Your task to perform on an android device: change the clock display to show seconds Image 0: 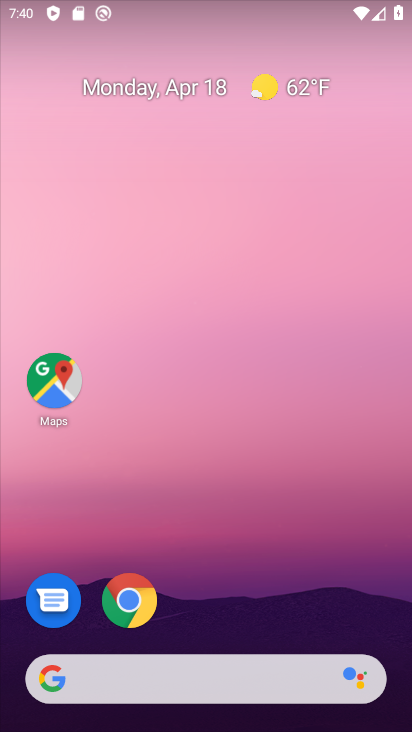
Step 0: drag from (154, 4) to (273, 8)
Your task to perform on an android device: change the clock display to show seconds Image 1: 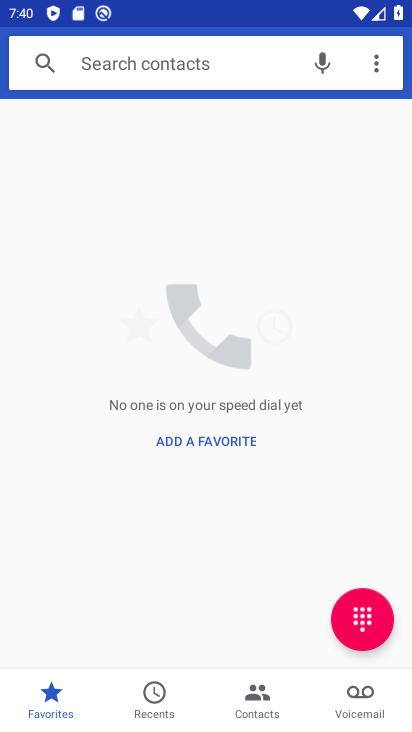
Step 1: press home button
Your task to perform on an android device: change the clock display to show seconds Image 2: 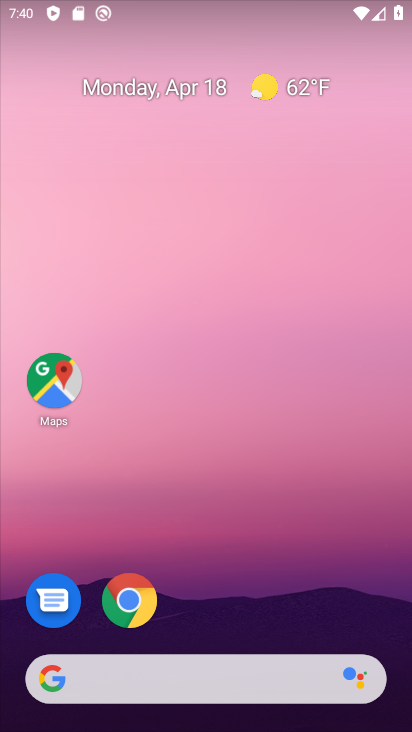
Step 2: drag from (220, 650) to (213, 19)
Your task to perform on an android device: change the clock display to show seconds Image 3: 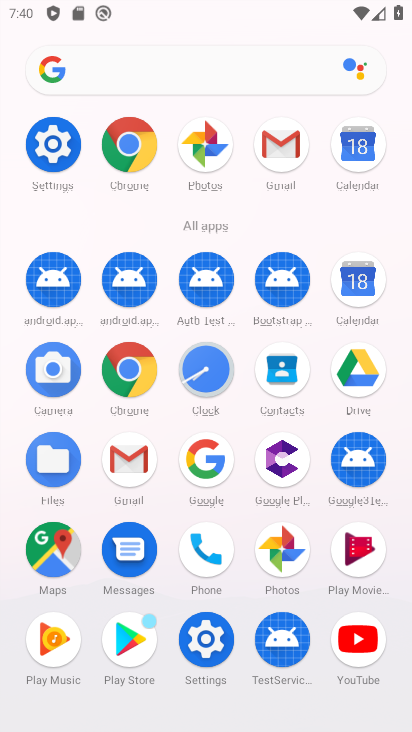
Step 3: click (211, 381)
Your task to perform on an android device: change the clock display to show seconds Image 4: 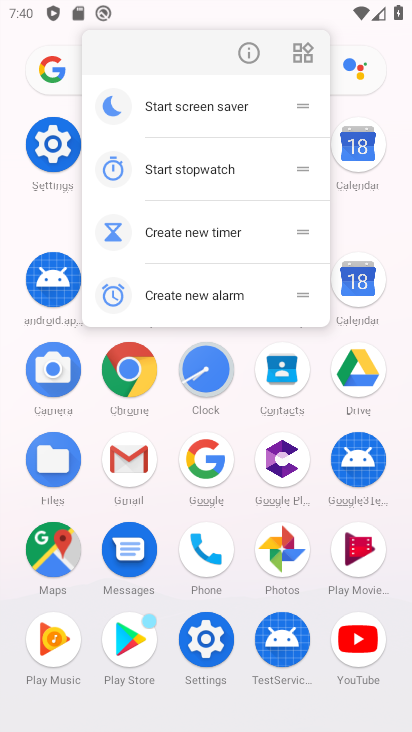
Step 4: click (208, 370)
Your task to perform on an android device: change the clock display to show seconds Image 5: 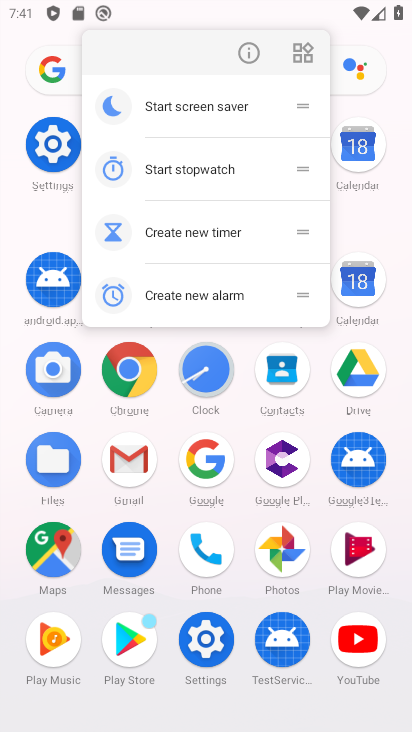
Step 5: click (208, 370)
Your task to perform on an android device: change the clock display to show seconds Image 6: 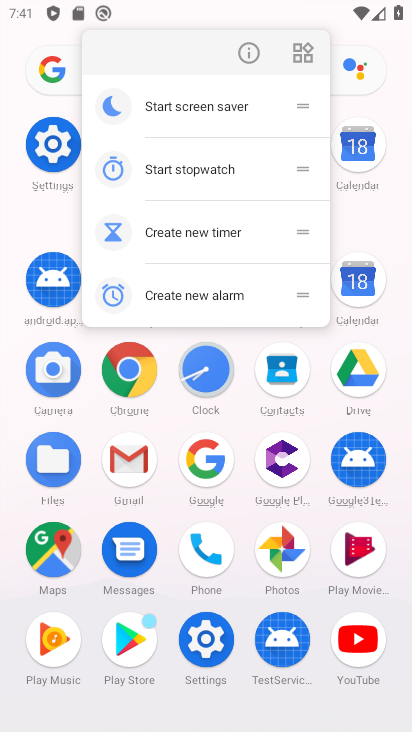
Step 6: click (207, 369)
Your task to perform on an android device: change the clock display to show seconds Image 7: 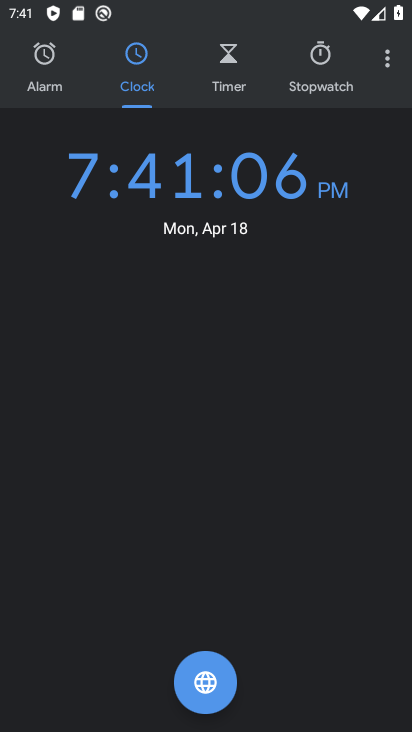
Step 7: click (387, 70)
Your task to perform on an android device: change the clock display to show seconds Image 8: 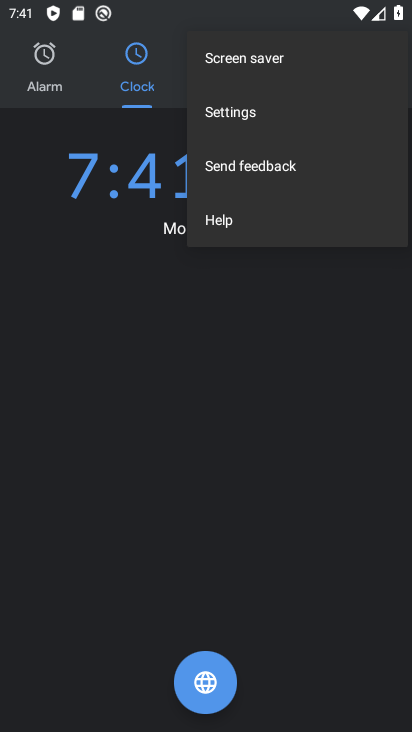
Step 8: click (280, 116)
Your task to perform on an android device: change the clock display to show seconds Image 9: 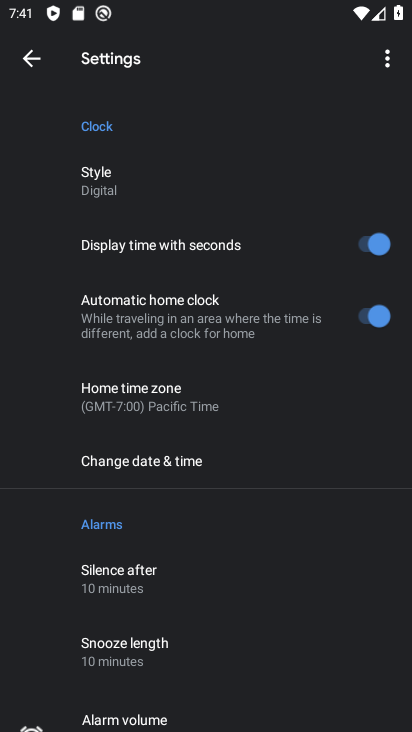
Step 9: click (354, 236)
Your task to perform on an android device: change the clock display to show seconds Image 10: 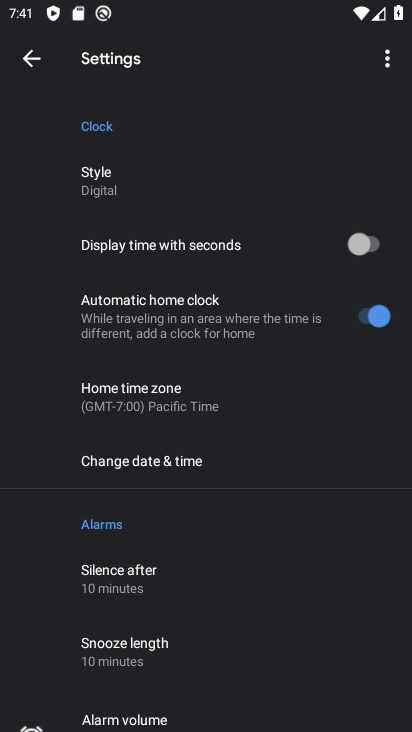
Step 10: task complete